Your task to perform on an android device: Set the phone to "Do not disturb". Image 0: 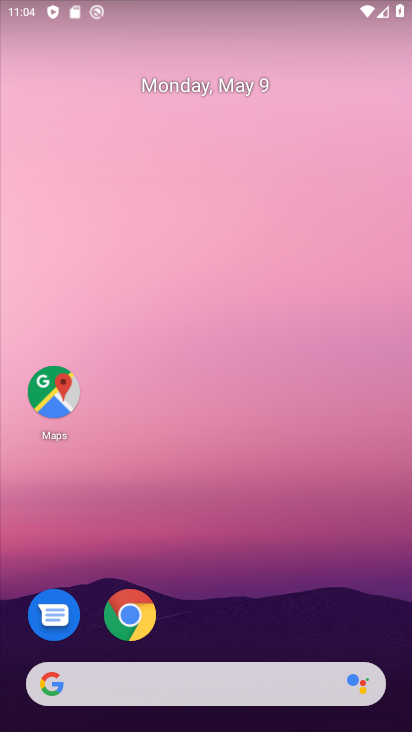
Step 0: drag from (218, 721) to (213, 240)
Your task to perform on an android device: Set the phone to "Do not disturb". Image 1: 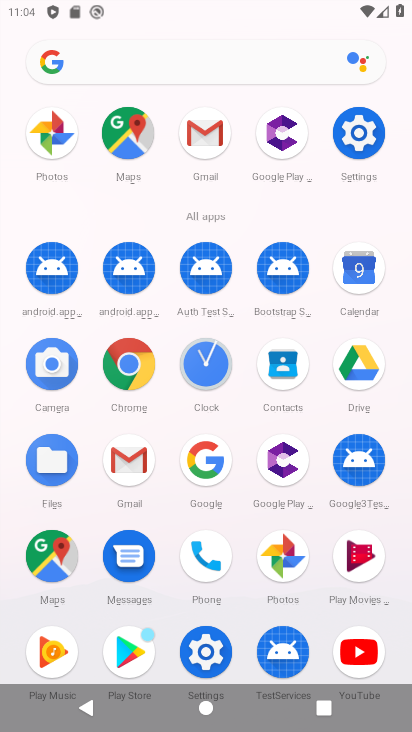
Step 1: click (362, 133)
Your task to perform on an android device: Set the phone to "Do not disturb". Image 2: 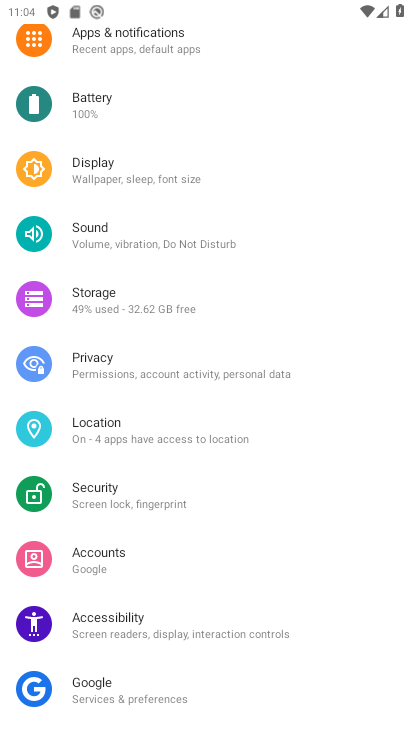
Step 2: click (197, 245)
Your task to perform on an android device: Set the phone to "Do not disturb". Image 3: 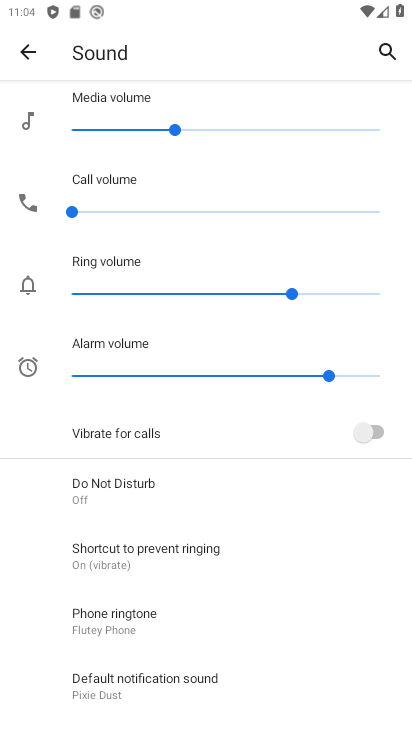
Step 3: click (118, 484)
Your task to perform on an android device: Set the phone to "Do not disturb". Image 4: 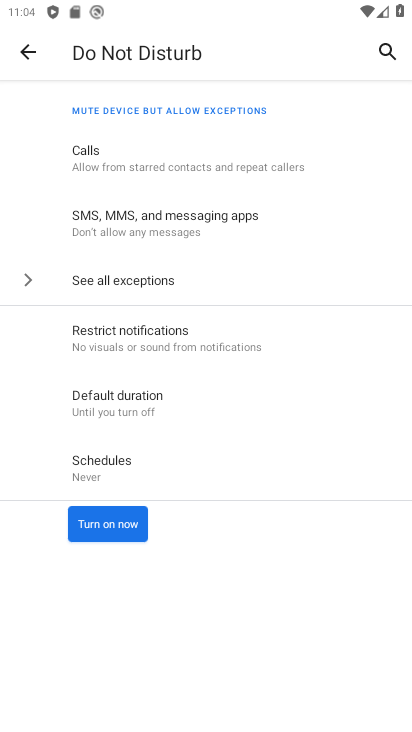
Step 4: click (90, 522)
Your task to perform on an android device: Set the phone to "Do not disturb". Image 5: 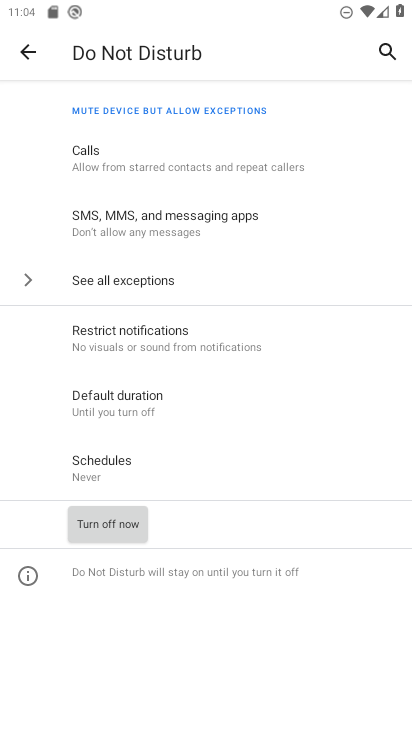
Step 5: task complete